Your task to perform on an android device: uninstall "Microsoft Authenticator" Image 0: 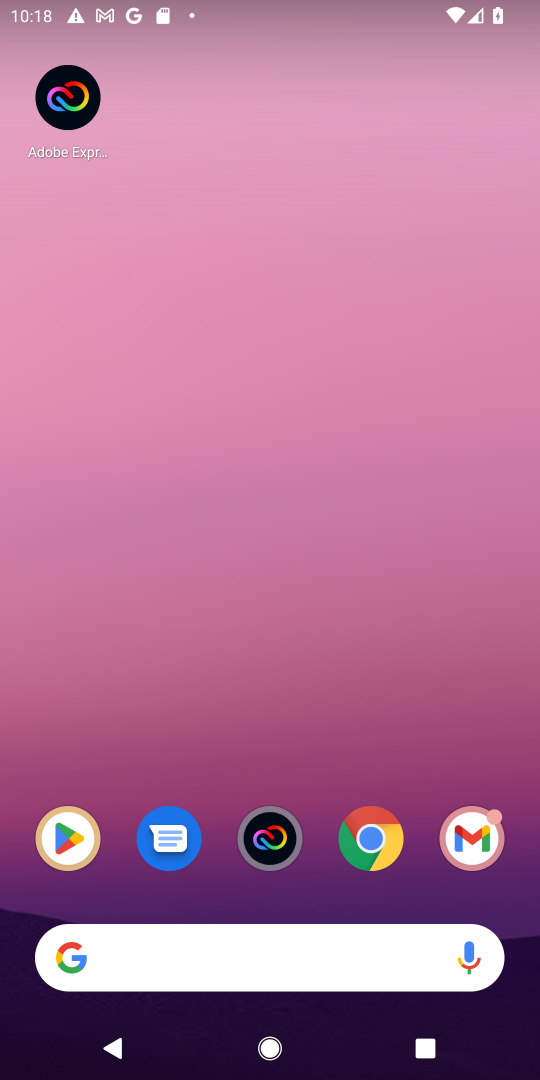
Step 0: press home button
Your task to perform on an android device: uninstall "Microsoft Authenticator" Image 1: 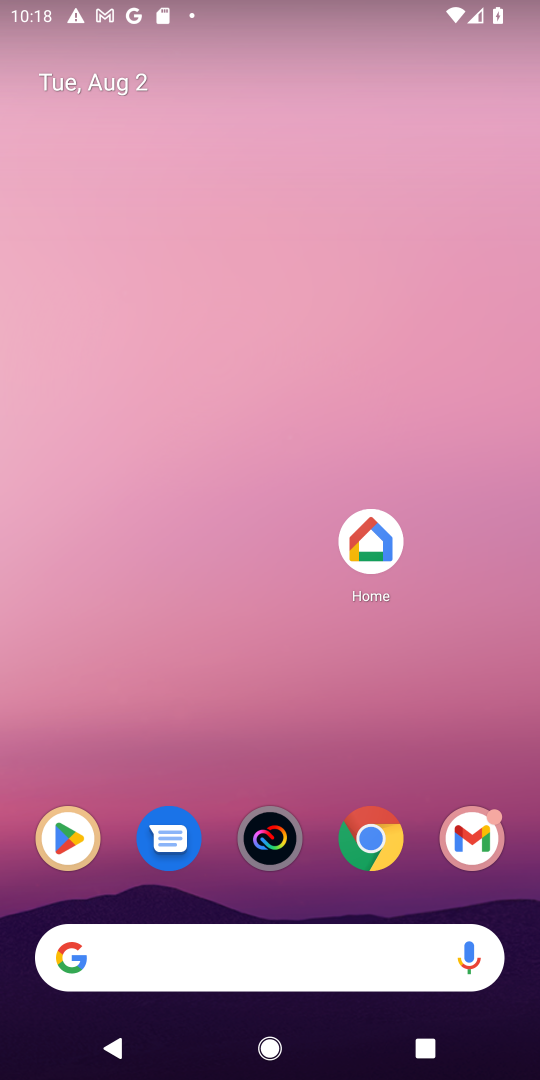
Step 1: drag from (209, 732) to (238, 195)
Your task to perform on an android device: uninstall "Microsoft Authenticator" Image 2: 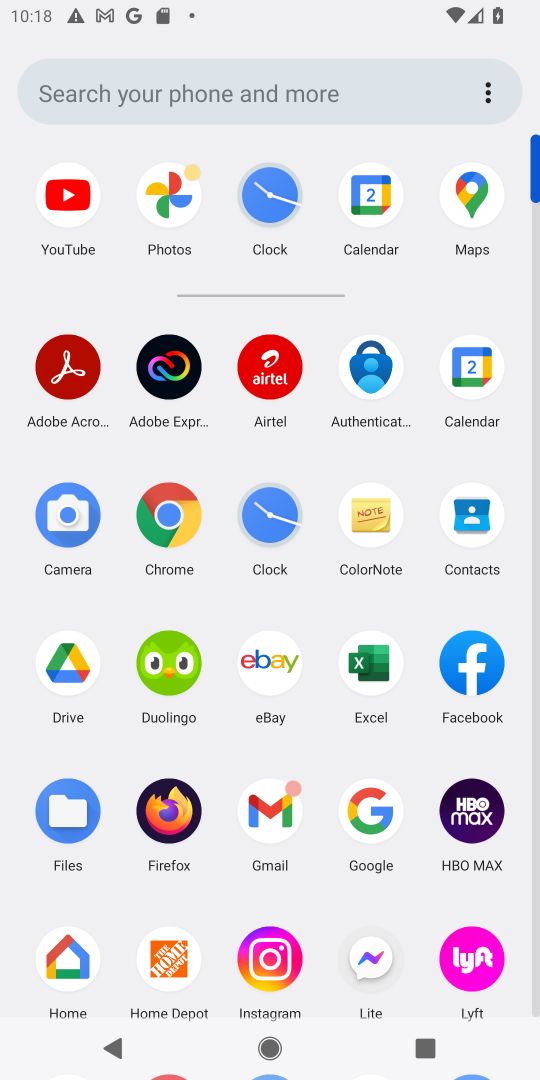
Step 2: drag from (307, 887) to (320, 449)
Your task to perform on an android device: uninstall "Microsoft Authenticator" Image 3: 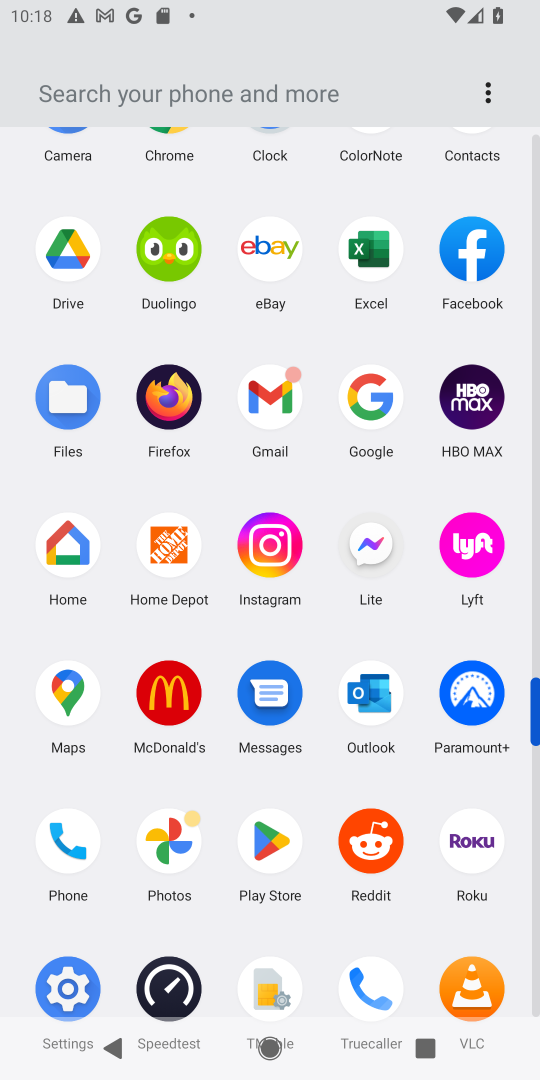
Step 3: drag from (304, 947) to (328, 631)
Your task to perform on an android device: uninstall "Microsoft Authenticator" Image 4: 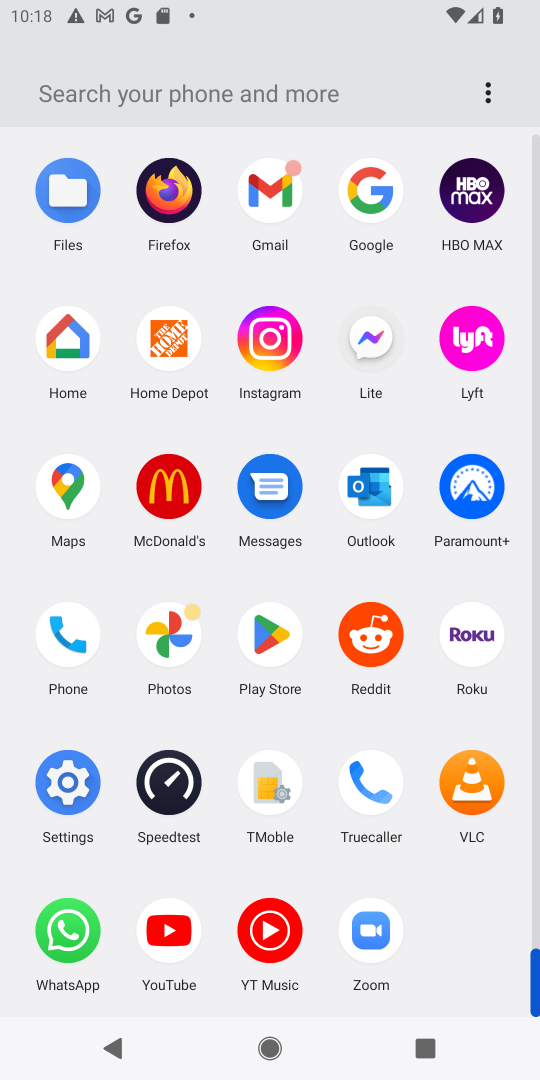
Step 4: click (270, 645)
Your task to perform on an android device: uninstall "Microsoft Authenticator" Image 5: 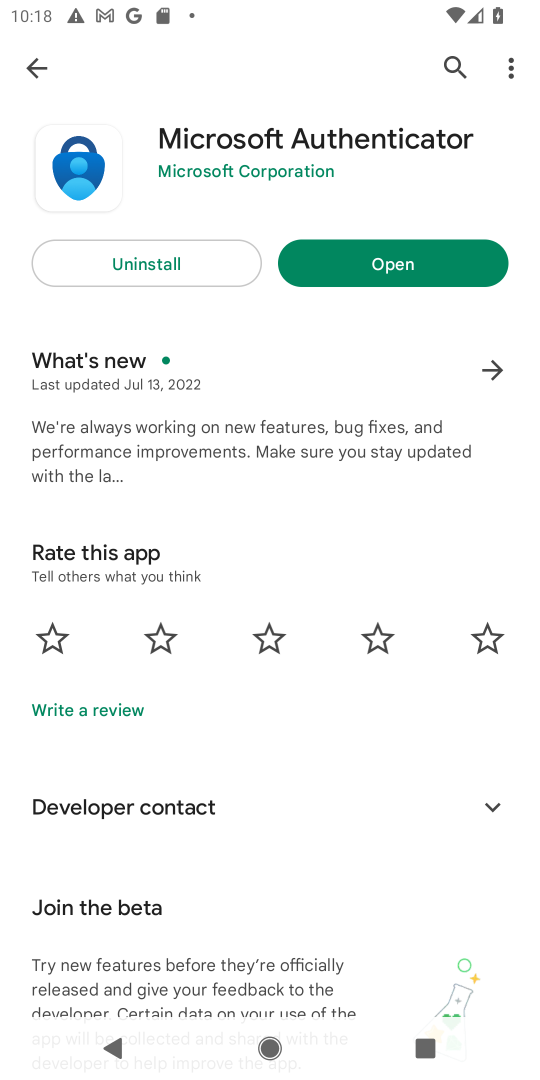
Step 5: click (455, 62)
Your task to perform on an android device: uninstall "Microsoft Authenticator" Image 6: 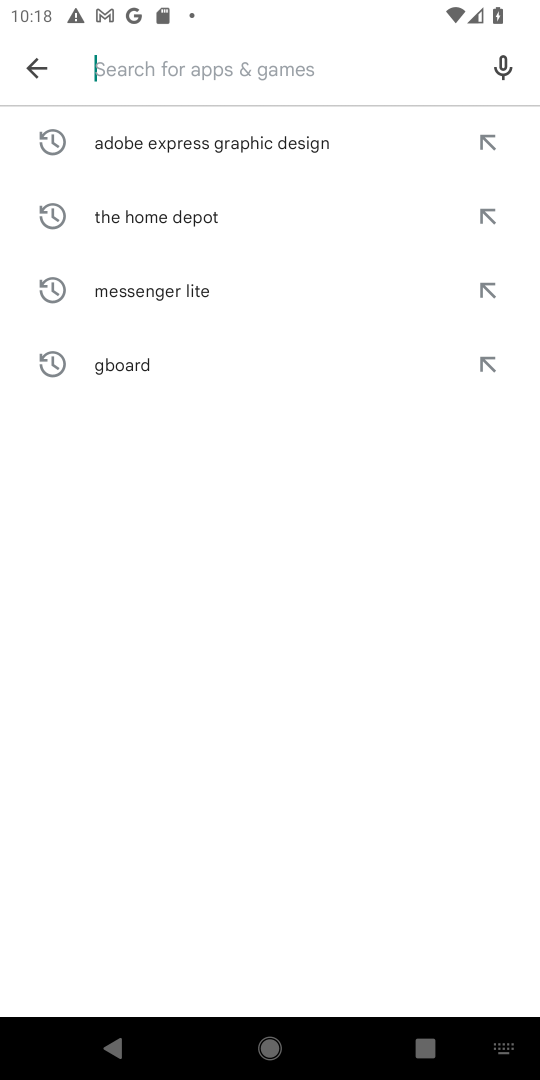
Step 6: click (350, 70)
Your task to perform on an android device: uninstall "Microsoft Authenticator" Image 7: 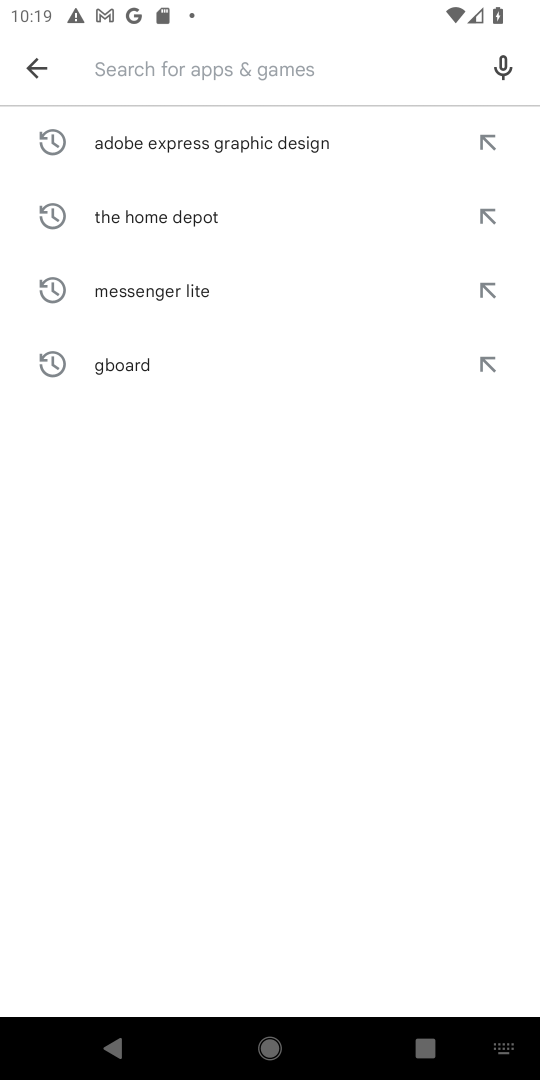
Step 7: type "microsoft authenticator"
Your task to perform on an android device: uninstall "Microsoft Authenticator" Image 8: 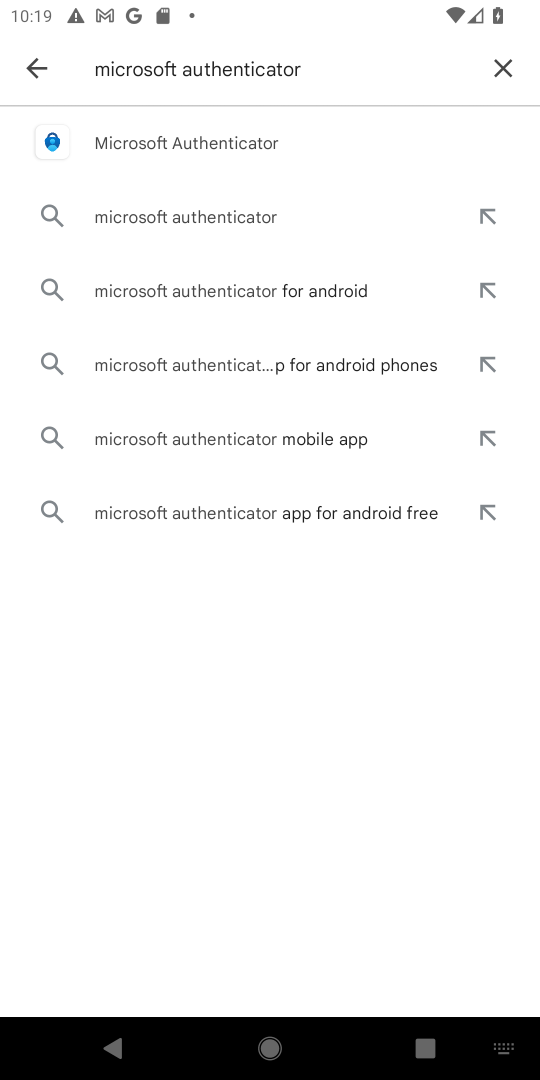
Step 8: click (320, 150)
Your task to perform on an android device: uninstall "Microsoft Authenticator" Image 9: 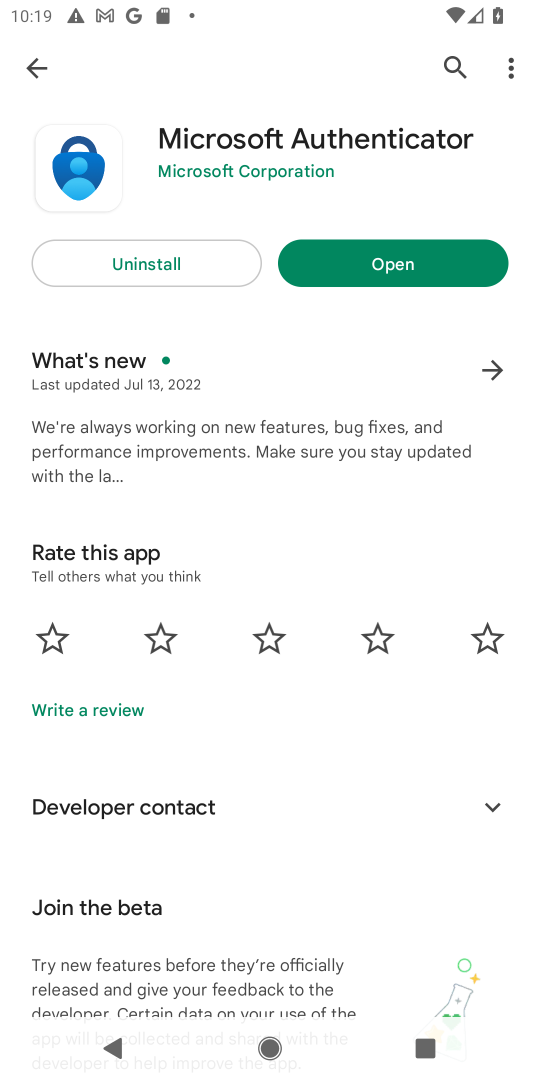
Step 9: click (225, 252)
Your task to perform on an android device: uninstall "Microsoft Authenticator" Image 10: 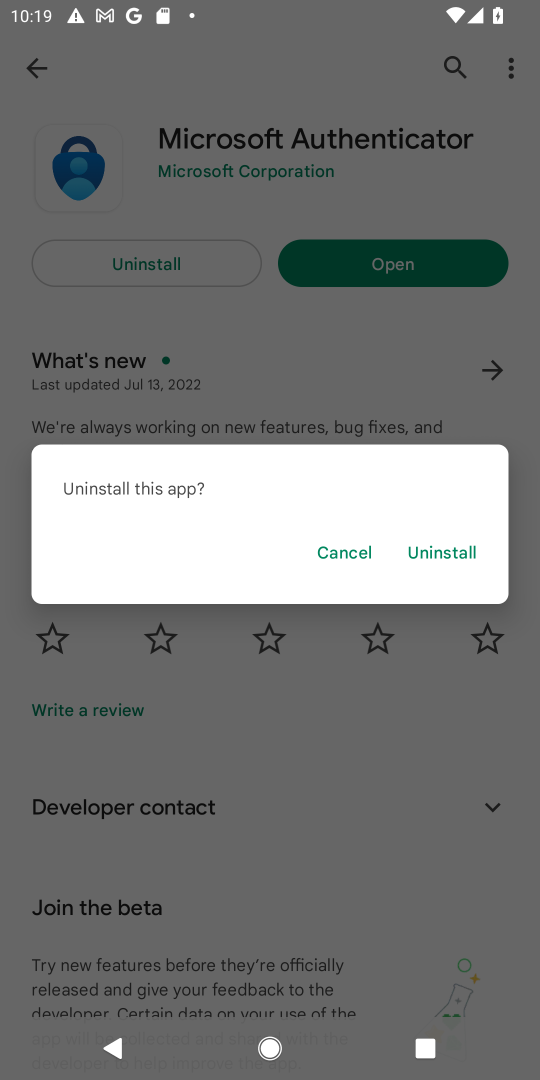
Step 10: click (432, 561)
Your task to perform on an android device: uninstall "Microsoft Authenticator" Image 11: 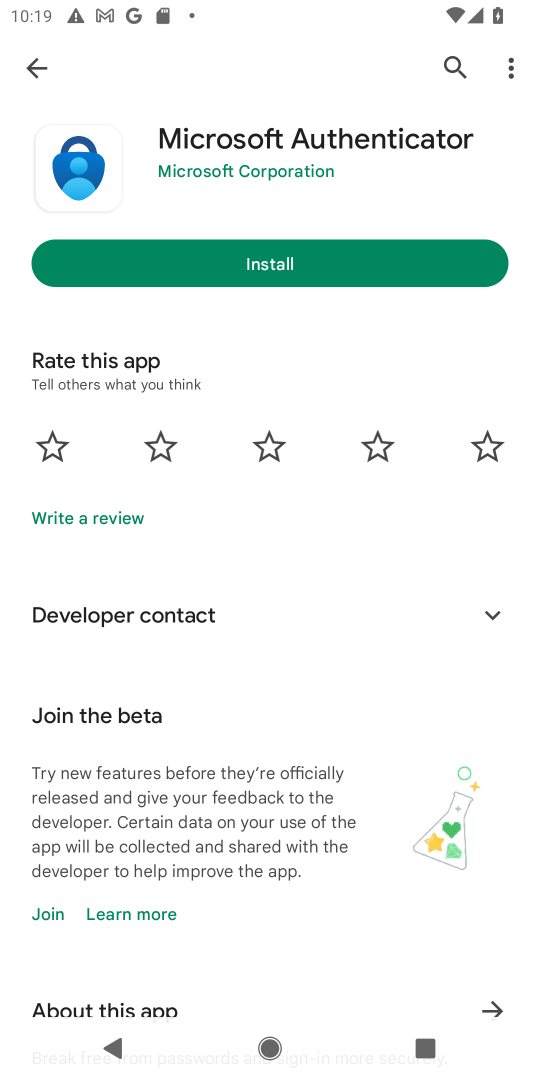
Step 11: task complete